Your task to perform on an android device: Open Wikipedia Image 0: 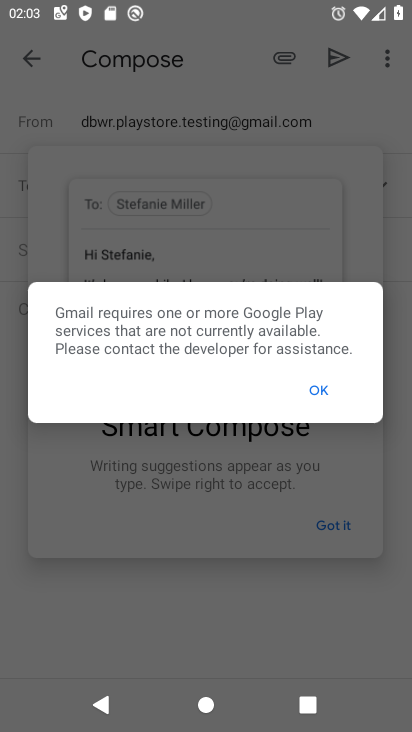
Step 0: press home button
Your task to perform on an android device: Open Wikipedia Image 1: 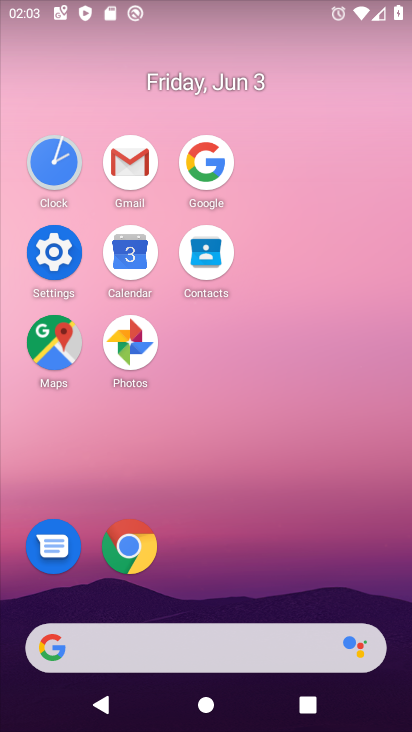
Step 1: click (145, 549)
Your task to perform on an android device: Open Wikipedia Image 2: 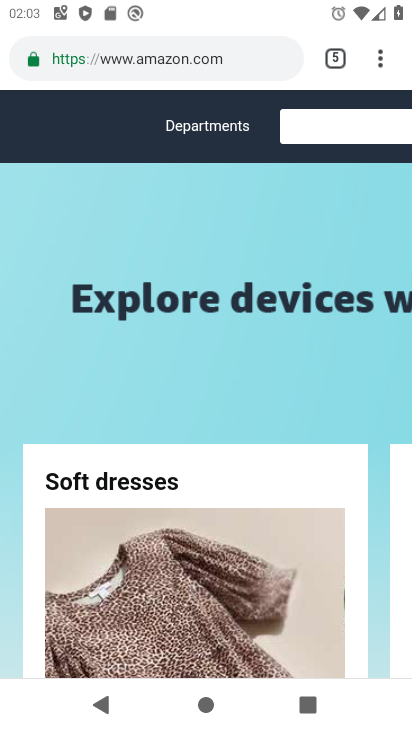
Step 2: click (336, 65)
Your task to perform on an android device: Open Wikipedia Image 3: 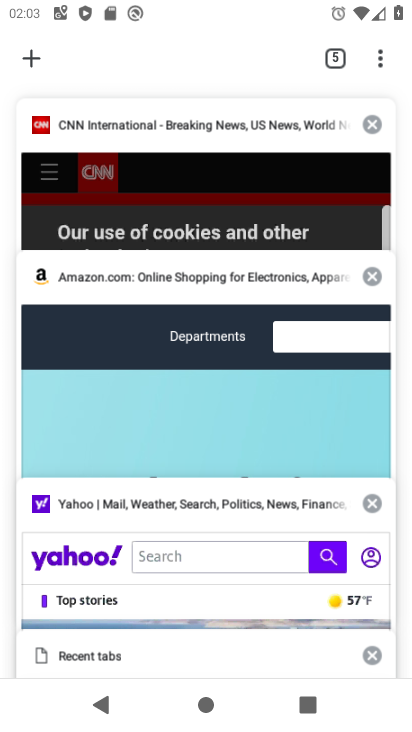
Step 3: drag from (204, 216) to (201, 630)
Your task to perform on an android device: Open Wikipedia Image 4: 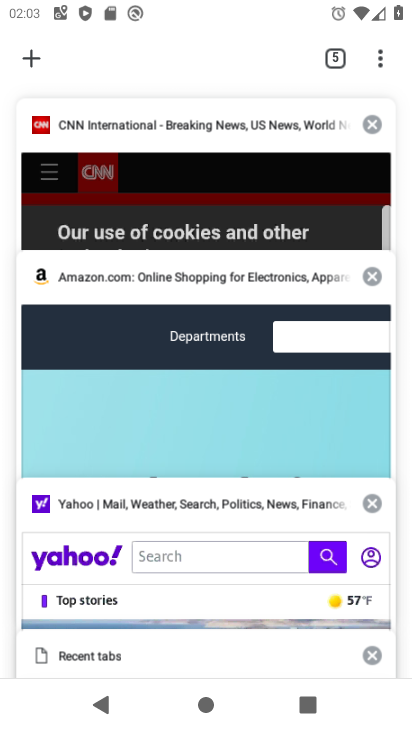
Step 4: drag from (234, 220) to (237, 490)
Your task to perform on an android device: Open Wikipedia Image 5: 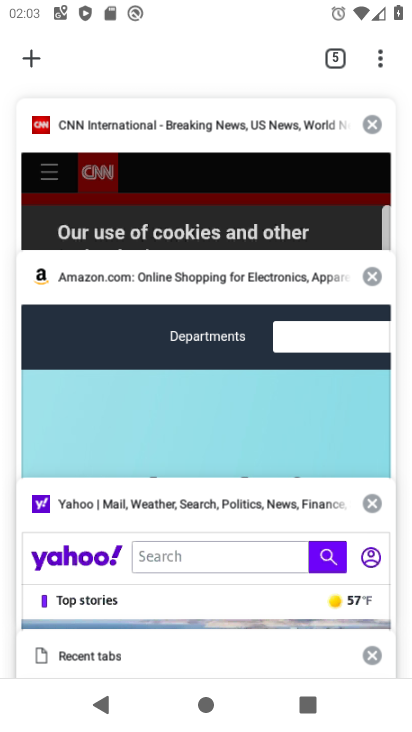
Step 5: drag from (194, 436) to (230, 136)
Your task to perform on an android device: Open Wikipedia Image 6: 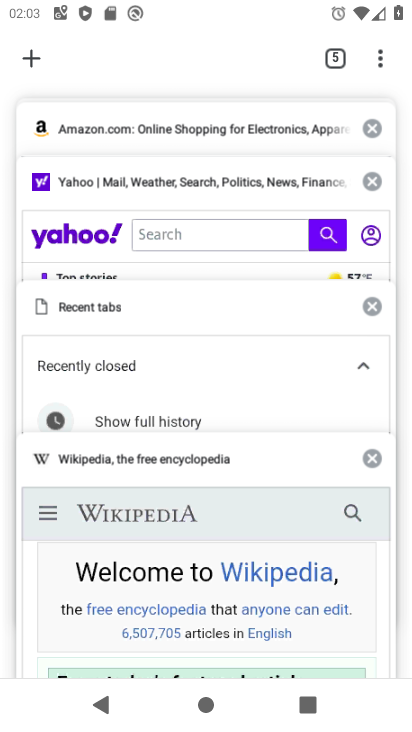
Step 6: click (165, 495)
Your task to perform on an android device: Open Wikipedia Image 7: 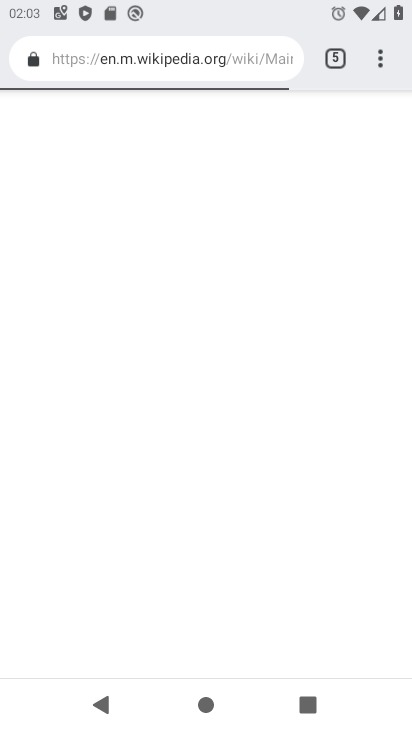
Step 7: task complete